Your task to perform on an android device: Search for Italian restaurants on Maps Image 0: 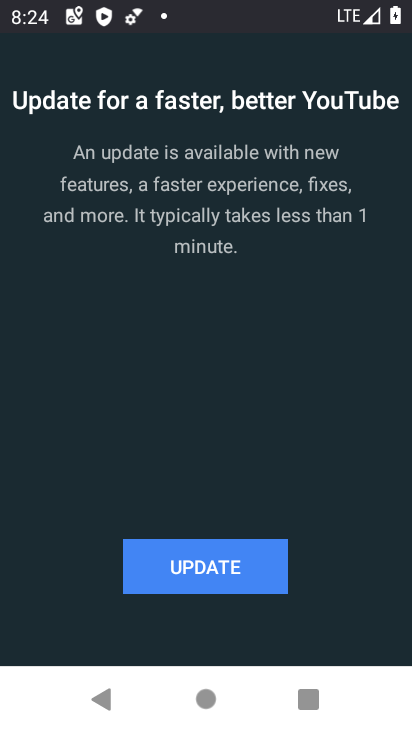
Step 0: press home button
Your task to perform on an android device: Search for Italian restaurants on Maps Image 1: 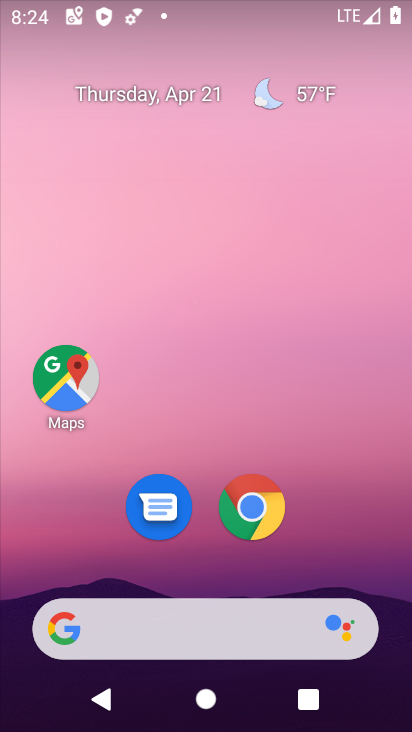
Step 1: click (282, 661)
Your task to perform on an android device: Search for Italian restaurants on Maps Image 2: 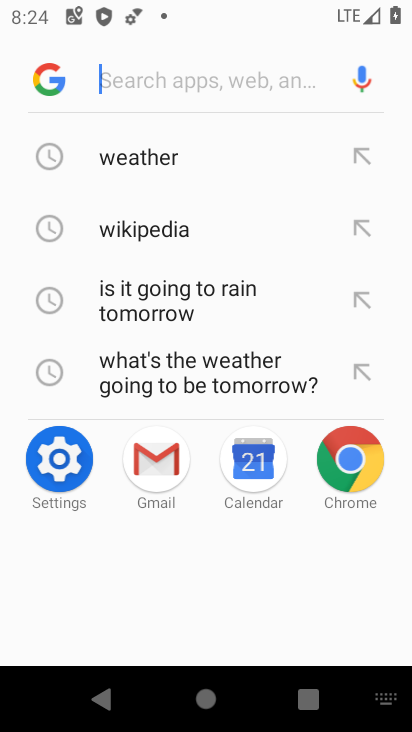
Step 2: press home button
Your task to perform on an android device: Search for Italian restaurants on Maps Image 3: 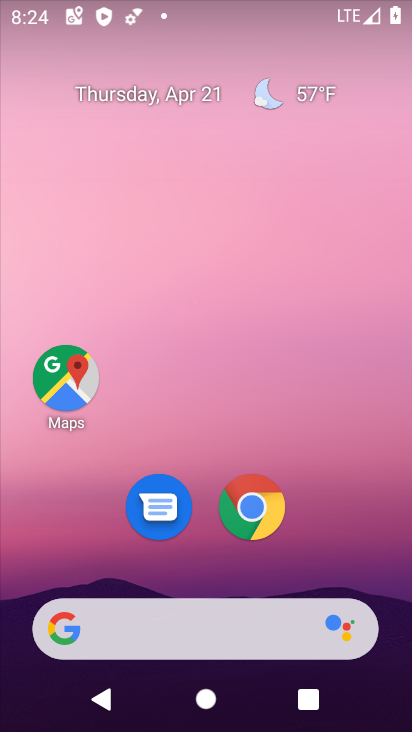
Step 3: click (50, 366)
Your task to perform on an android device: Search for Italian restaurants on Maps Image 4: 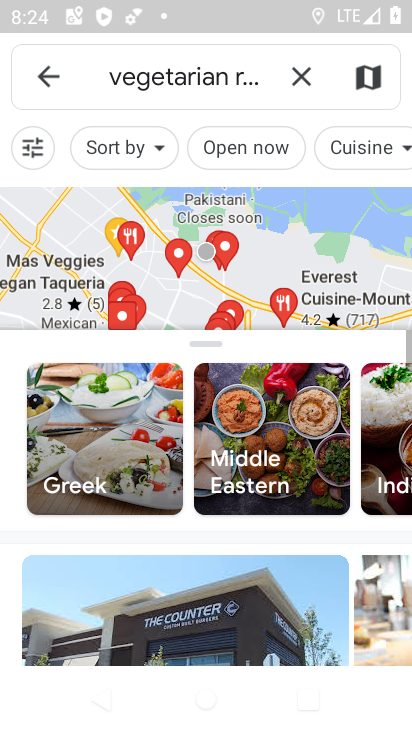
Step 4: click (302, 78)
Your task to perform on an android device: Search for Italian restaurants on Maps Image 5: 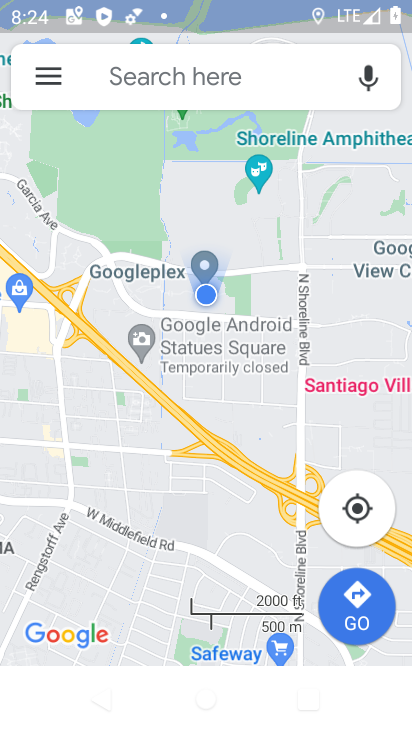
Step 5: click (188, 88)
Your task to perform on an android device: Search for Italian restaurants on Maps Image 6: 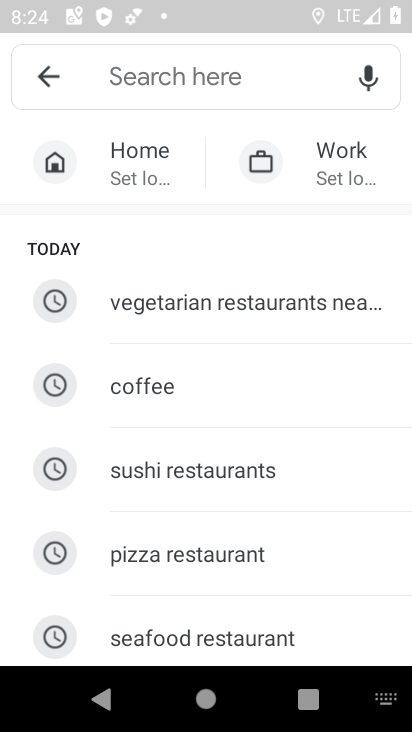
Step 6: type " vegetarian restaurants"
Your task to perform on an android device: Search for Italian restaurants on Maps Image 7: 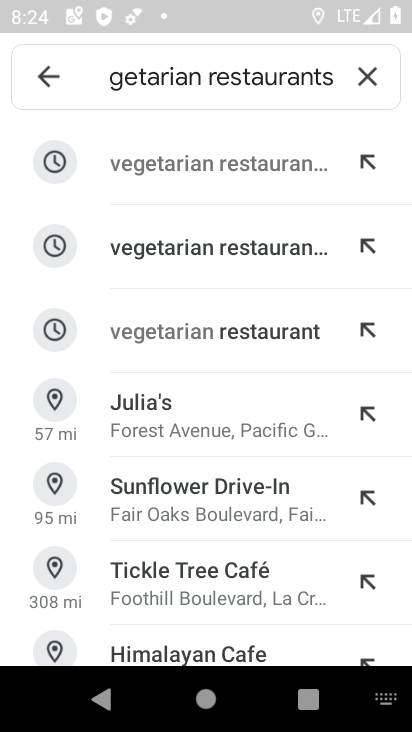
Step 7: click (362, 80)
Your task to perform on an android device: Search for Italian restaurants on Maps Image 8: 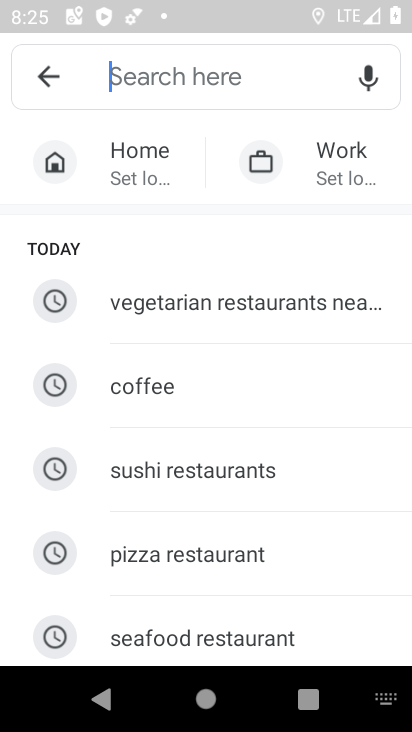
Step 8: type " Italian restaurants "
Your task to perform on an android device: Search for Italian restaurants on Maps Image 9: 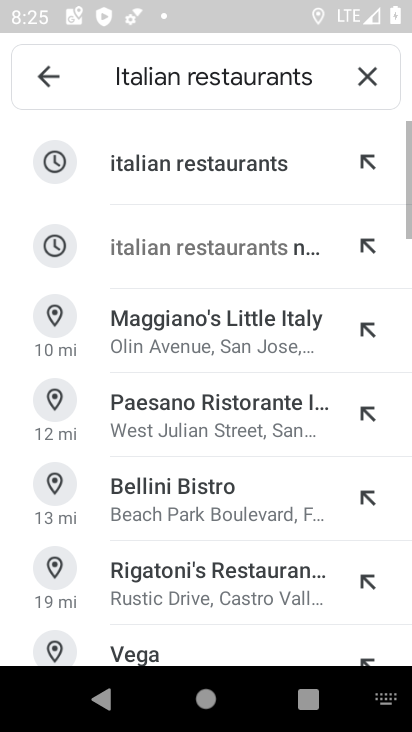
Step 9: click (141, 156)
Your task to perform on an android device: Search for Italian restaurants on Maps Image 10: 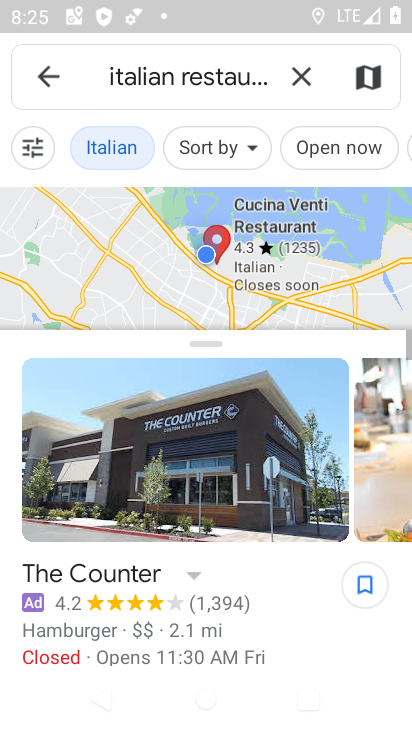
Step 10: task complete